Your task to perform on an android device: What is the recent news? Image 0: 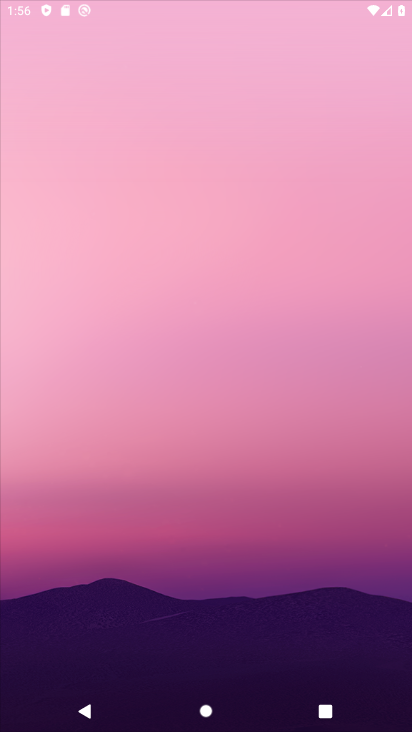
Step 0: click (144, 590)
Your task to perform on an android device: What is the recent news? Image 1: 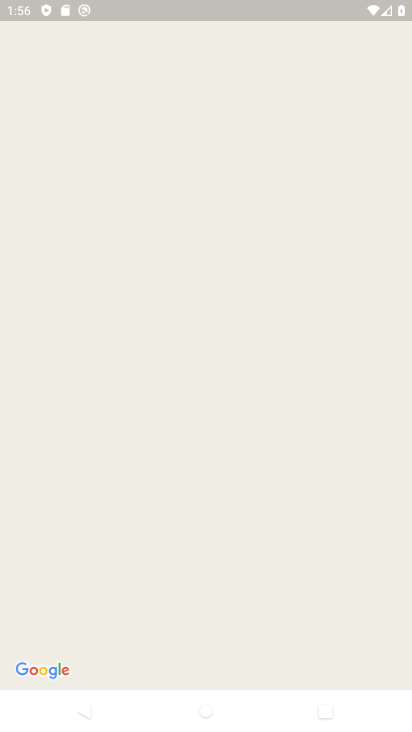
Step 1: task complete